Your task to perform on an android device: Open calendar and show me the fourth week of next month Image 0: 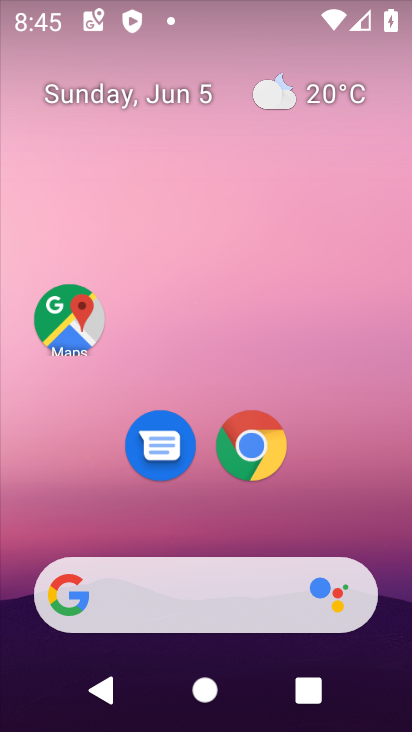
Step 0: press home button
Your task to perform on an android device: Open calendar and show me the fourth week of next month Image 1: 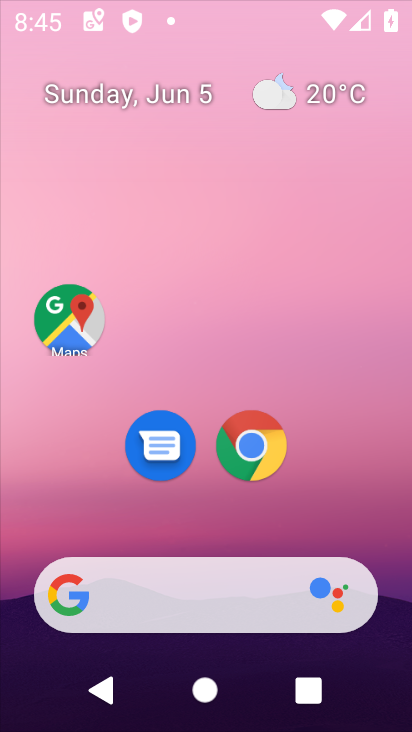
Step 1: drag from (344, 606) to (348, 246)
Your task to perform on an android device: Open calendar and show me the fourth week of next month Image 2: 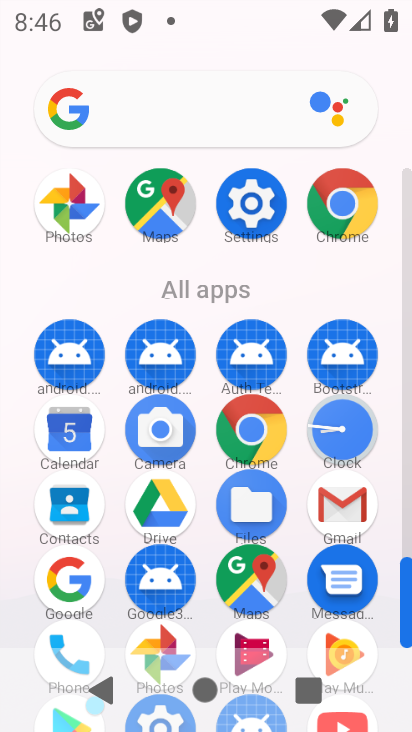
Step 2: click (80, 418)
Your task to perform on an android device: Open calendar and show me the fourth week of next month Image 3: 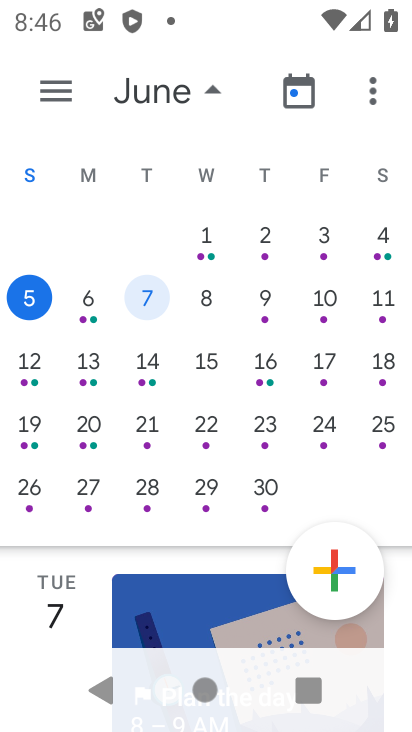
Step 3: drag from (314, 373) to (8, 569)
Your task to perform on an android device: Open calendar and show me the fourth week of next month Image 4: 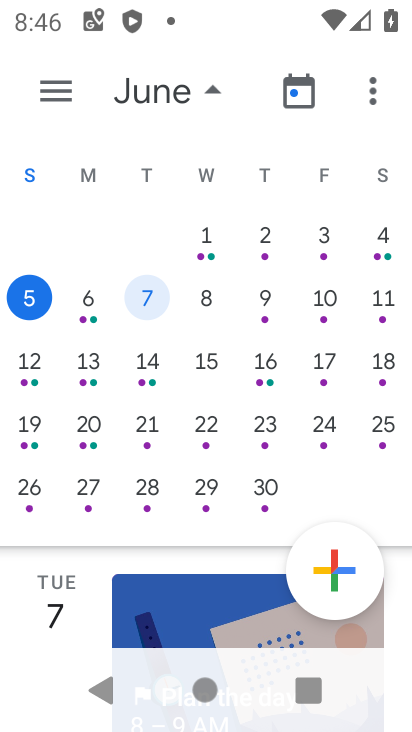
Step 4: drag from (375, 332) to (43, 350)
Your task to perform on an android device: Open calendar and show me the fourth week of next month Image 5: 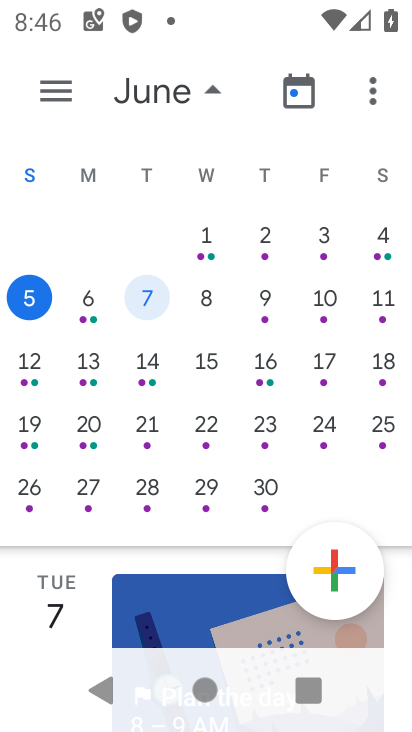
Step 5: drag from (357, 348) to (5, 525)
Your task to perform on an android device: Open calendar and show me the fourth week of next month Image 6: 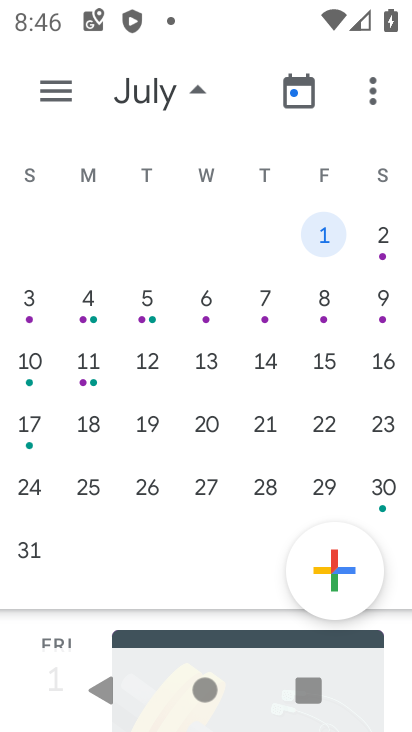
Step 6: click (205, 421)
Your task to perform on an android device: Open calendar and show me the fourth week of next month Image 7: 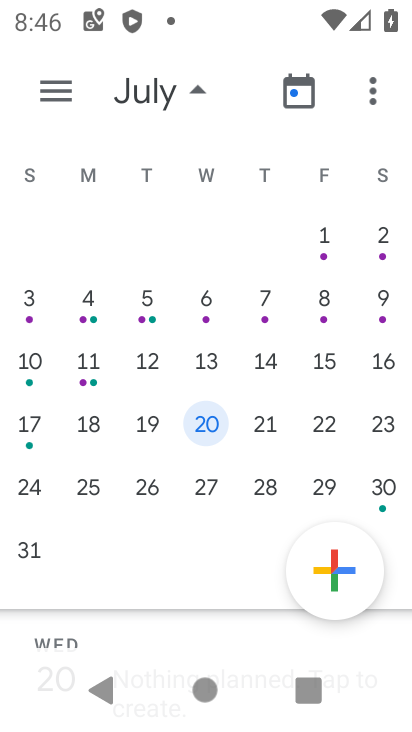
Step 7: click (67, 102)
Your task to perform on an android device: Open calendar and show me the fourth week of next month Image 8: 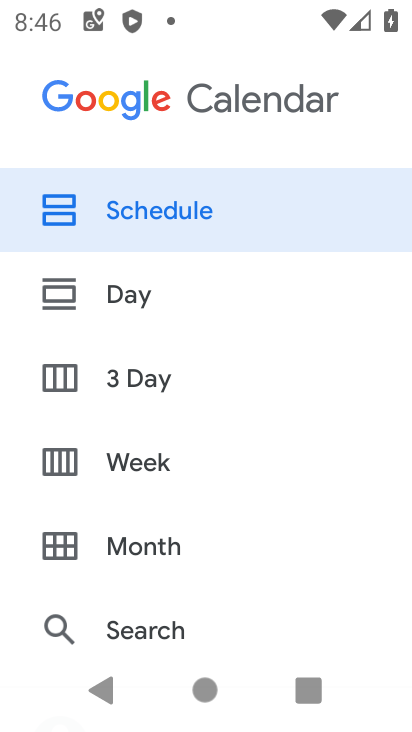
Step 8: click (180, 483)
Your task to perform on an android device: Open calendar and show me the fourth week of next month Image 9: 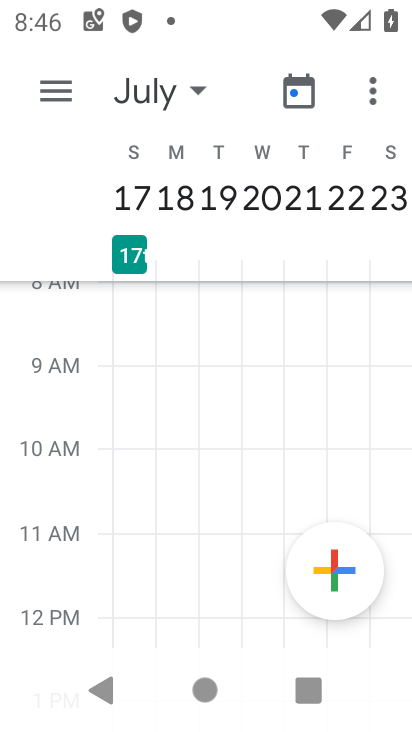
Step 9: task complete